Your task to perform on an android device: open chrome privacy settings Image 0: 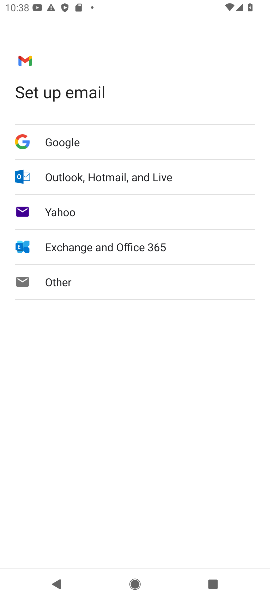
Step 0: press home button
Your task to perform on an android device: open chrome privacy settings Image 1: 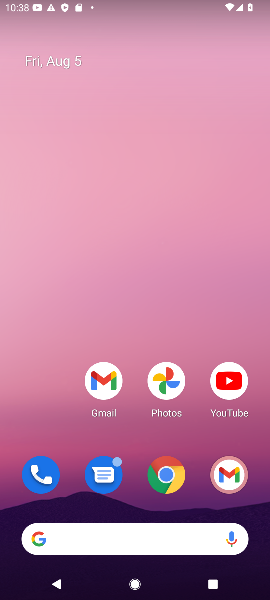
Step 1: click (163, 474)
Your task to perform on an android device: open chrome privacy settings Image 2: 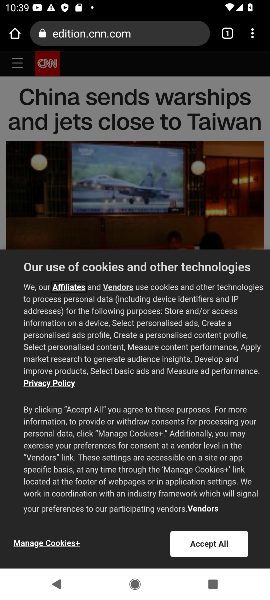
Step 2: click (257, 34)
Your task to perform on an android device: open chrome privacy settings Image 3: 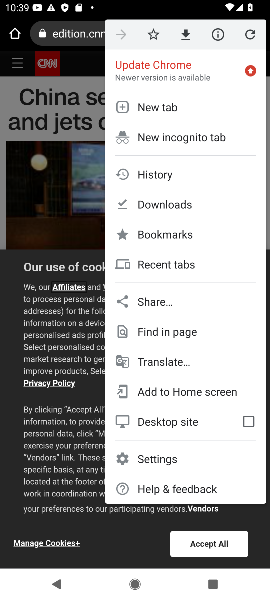
Step 3: click (153, 461)
Your task to perform on an android device: open chrome privacy settings Image 4: 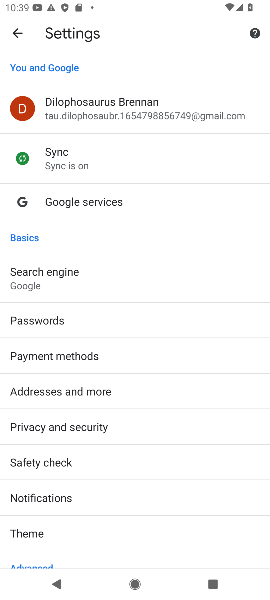
Step 4: drag from (80, 492) to (93, 404)
Your task to perform on an android device: open chrome privacy settings Image 5: 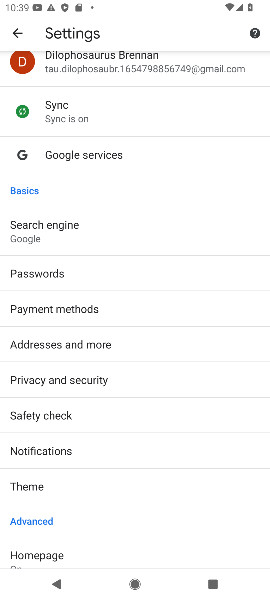
Step 5: click (67, 377)
Your task to perform on an android device: open chrome privacy settings Image 6: 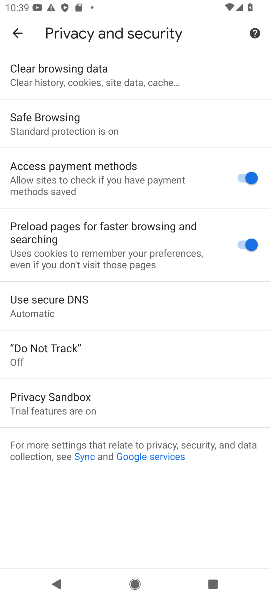
Step 6: task complete